Your task to perform on an android device: Open settings on Google Maps Image 0: 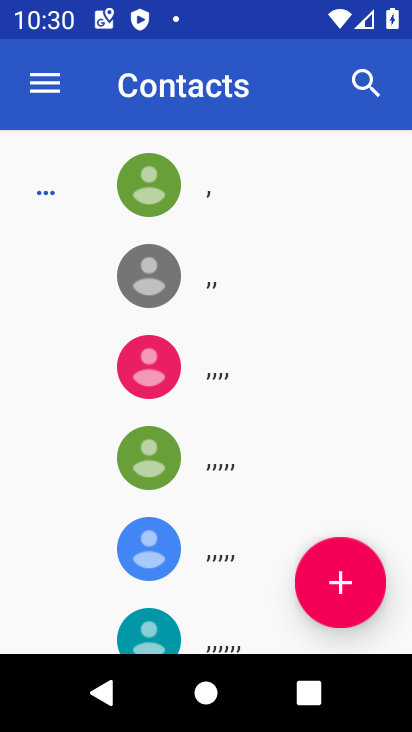
Step 0: press home button
Your task to perform on an android device: Open settings on Google Maps Image 1: 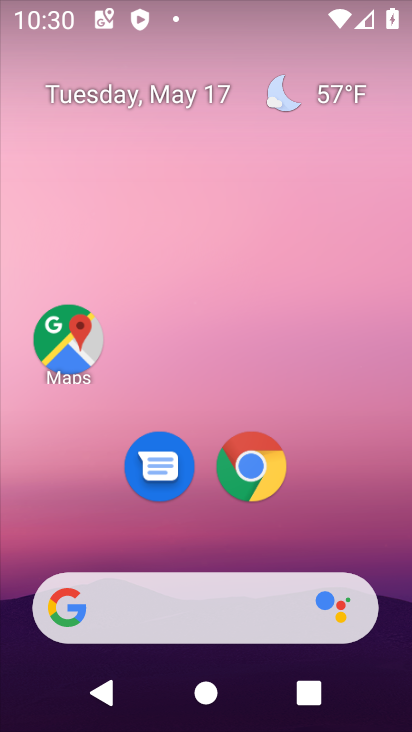
Step 1: click (96, 355)
Your task to perform on an android device: Open settings on Google Maps Image 2: 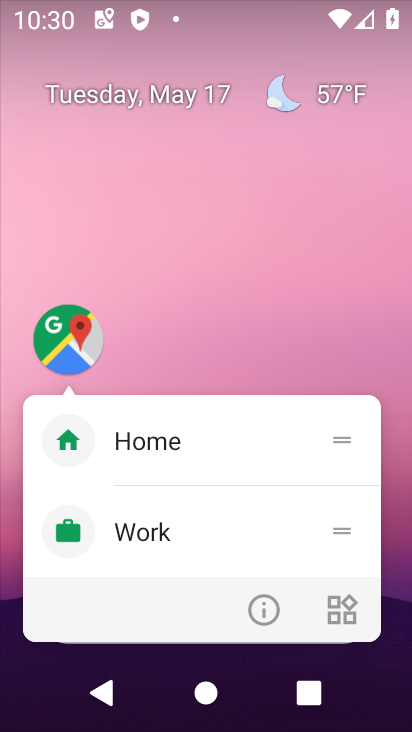
Step 2: click (68, 356)
Your task to perform on an android device: Open settings on Google Maps Image 3: 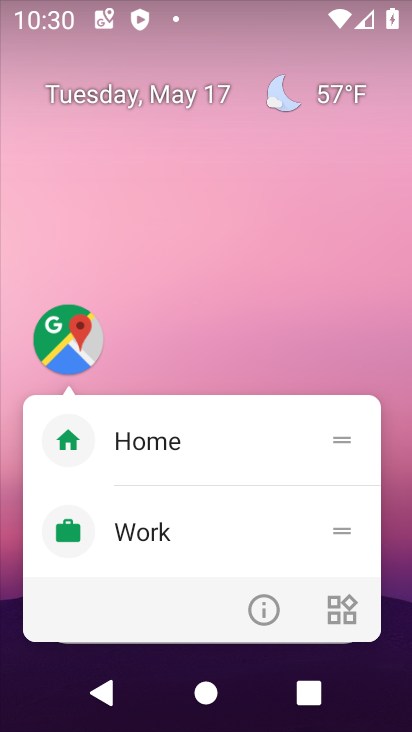
Step 3: click (47, 356)
Your task to perform on an android device: Open settings on Google Maps Image 4: 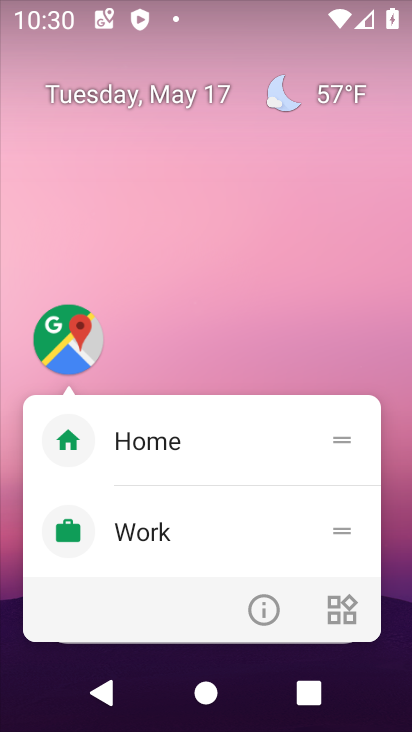
Step 4: click (42, 357)
Your task to perform on an android device: Open settings on Google Maps Image 5: 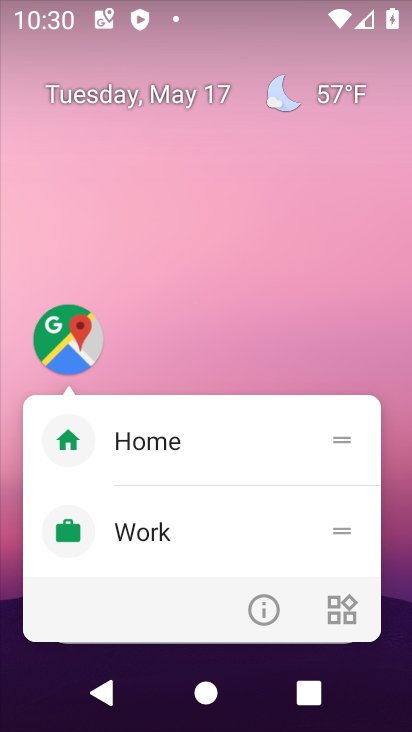
Step 5: click (42, 357)
Your task to perform on an android device: Open settings on Google Maps Image 6: 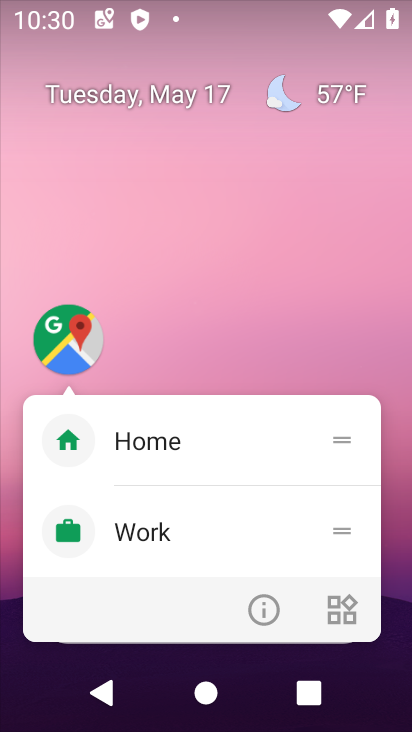
Step 6: click (70, 342)
Your task to perform on an android device: Open settings on Google Maps Image 7: 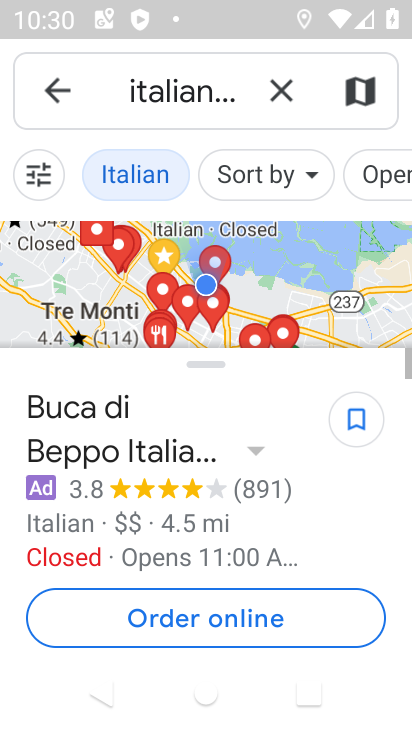
Step 7: click (76, 101)
Your task to perform on an android device: Open settings on Google Maps Image 8: 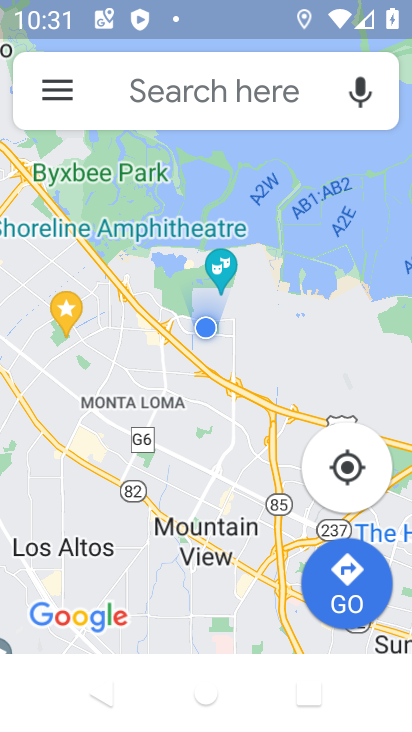
Step 8: click (76, 101)
Your task to perform on an android device: Open settings on Google Maps Image 9: 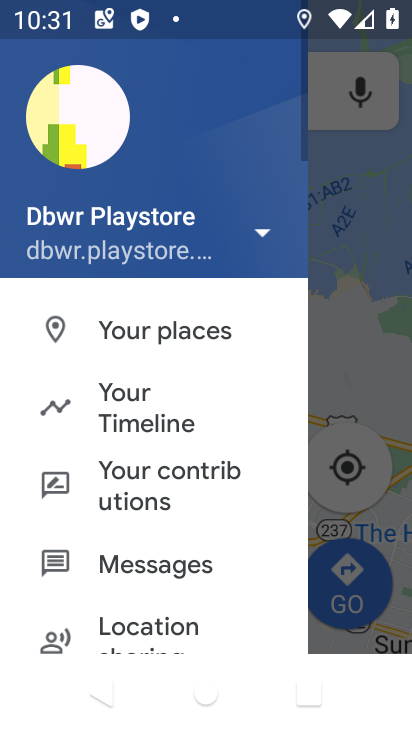
Step 9: drag from (128, 566) to (253, 125)
Your task to perform on an android device: Open settings on Google Maps Image 10: 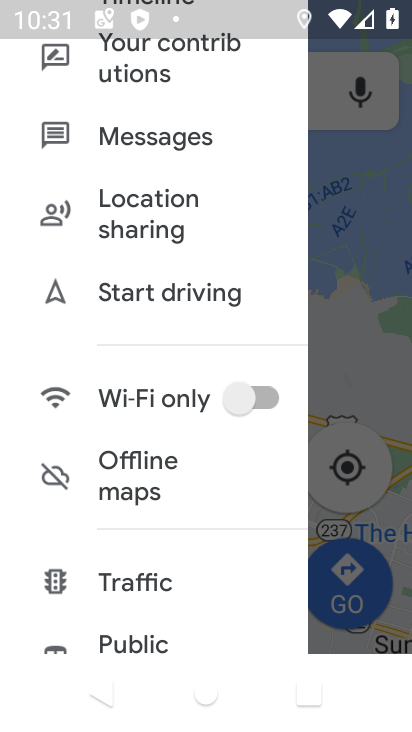
Step 10: drag from (134, 609) to (237, 233)
Your task to perform on an android device: Open settings on Google Maps Image 11: 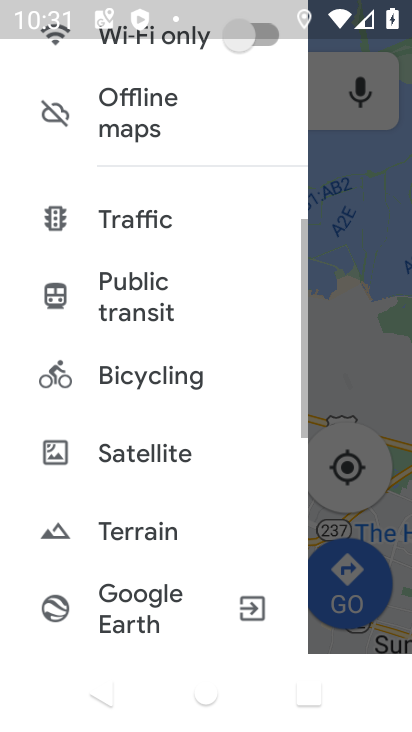
Step 11: drag from (121, 588) to (218, 254)
Your task to perform on an android device: Open settings on Google Maps Image 12: 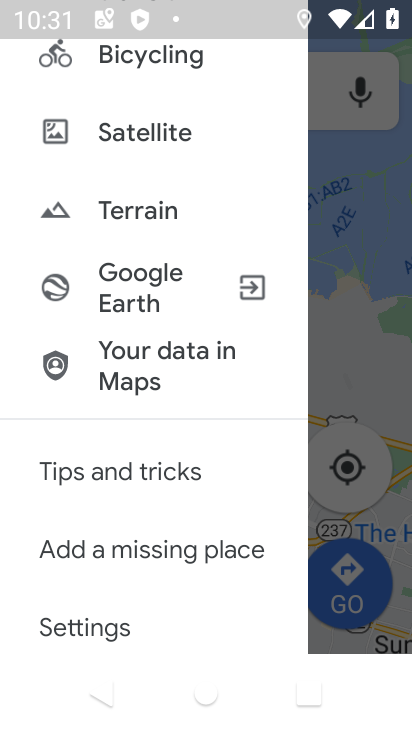
Step 12: click (166, 613)
Your task to perform on an android device: Open settings on Google Maps Image 13: 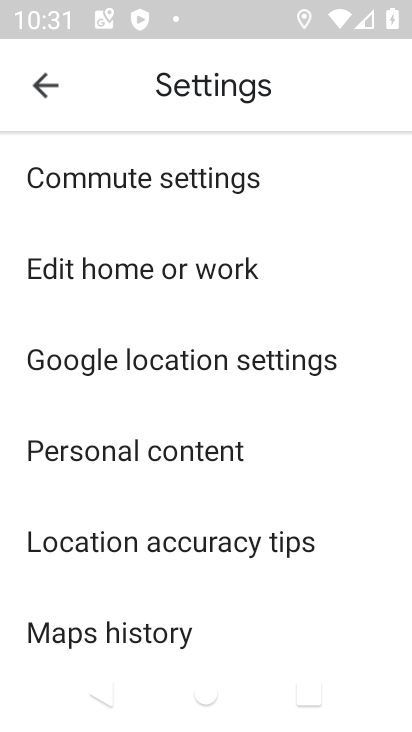
Step 13: task complete